Your task to perform on an android device: open device folders in google photos Image 0: 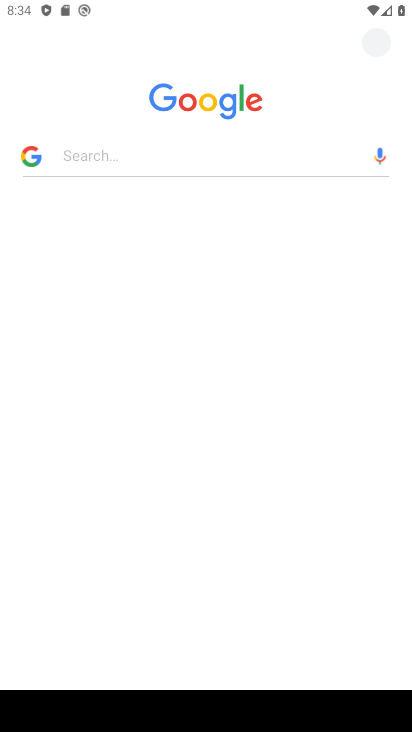
Step 0: press home button
Your task to perform on an android device: open device folders in google photos Image 1: 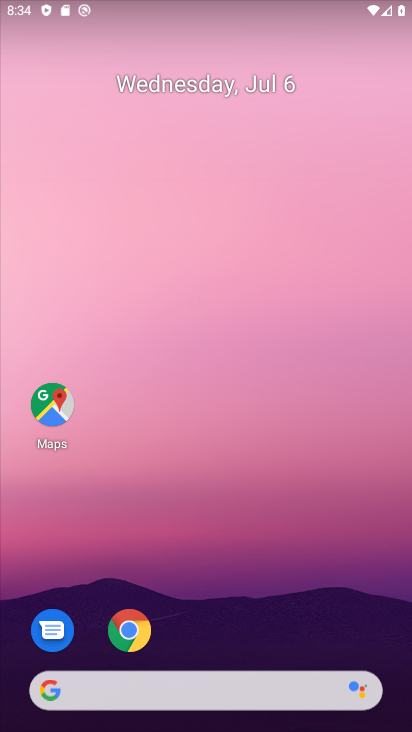
Step 1: drag from (347, 630) to (314, 20)
Your task to perform on an android device: open device folders in google photos Image 2: 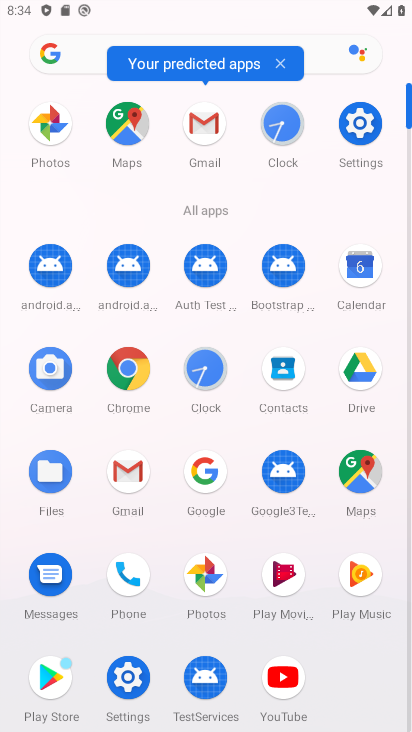
Step 2: click (208, 577)
Your task to perform on an android device: open device folders in google photos Image 3: 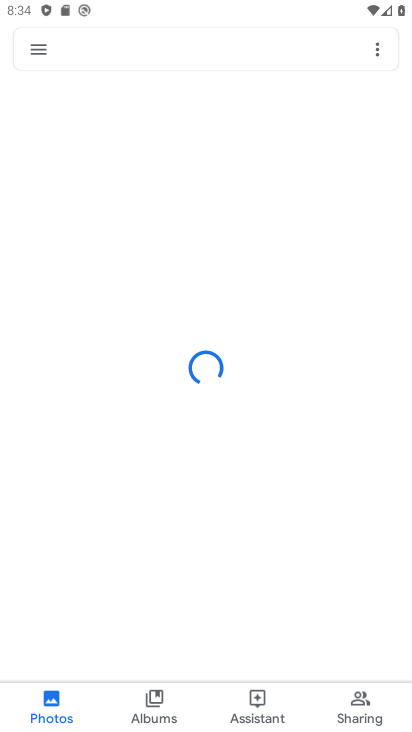
Step 3: click (38, 49)
Your task to perform on an android device: open device folders in google photos Image 4: 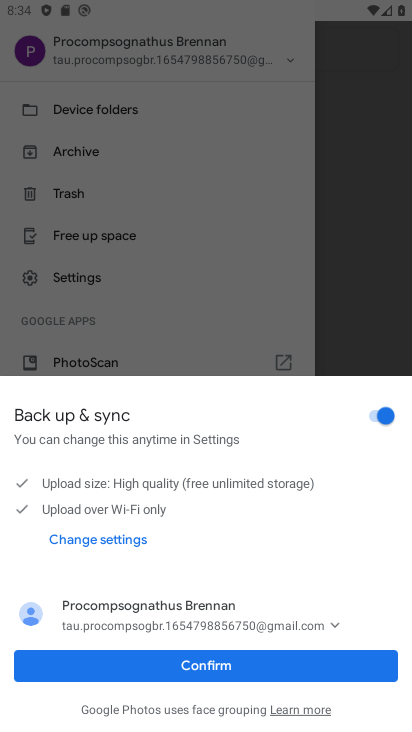
Step 4: click (214, 668)
Your task to perform on an android device: open device folders in google photos Image 5: 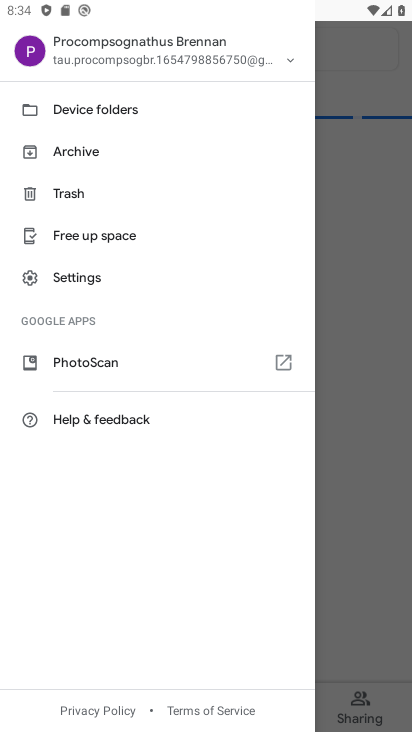
Step 5: click (85, 106)
Your task to perform on an android device: open device folders in google photos Image 6: 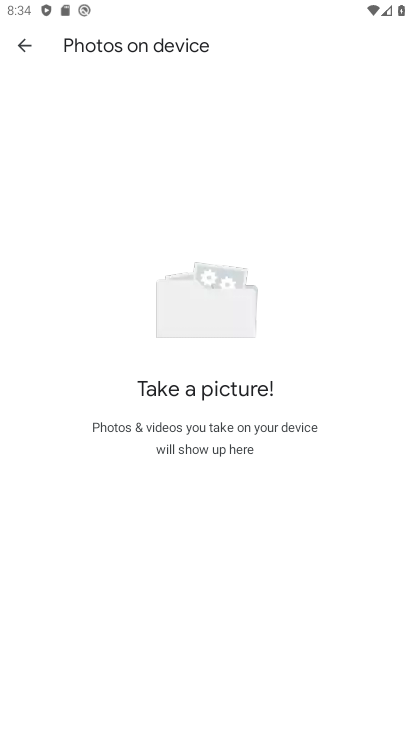
Step 6: task complete